Your task to perform on an android device: set the stopwatch Image 0: 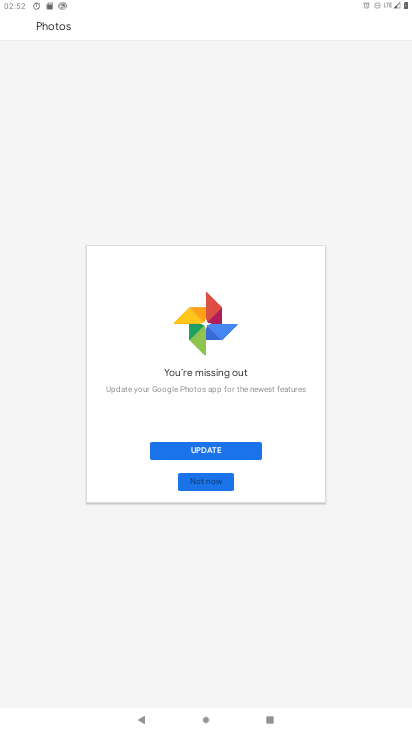
Step 0: press home button
Your task to perform on an android device: set the stopwatch Image 1: 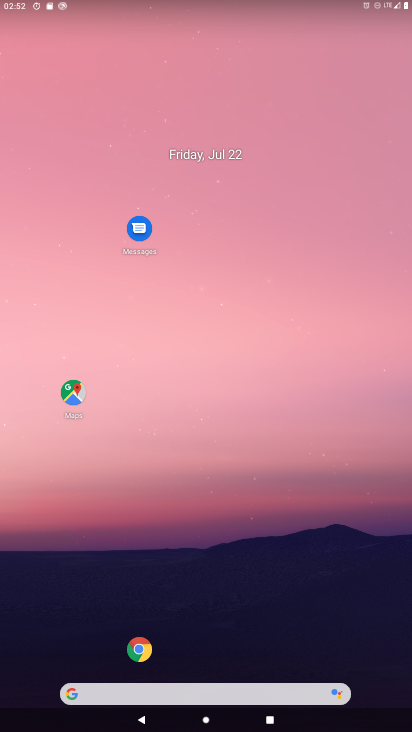
Step 1: drag from (26, 675) to (370, 15)
Your task to perform on an android device: set the stopwatch Image 2: 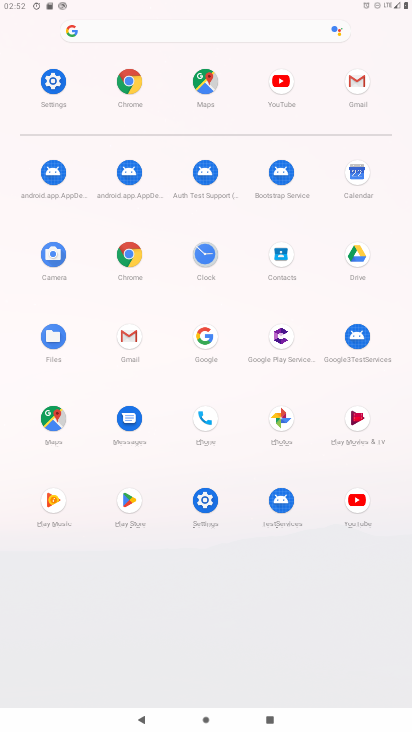
Step 2: click (211, 265)
Your task to perform on an android device: set the stopwatch Image 3: 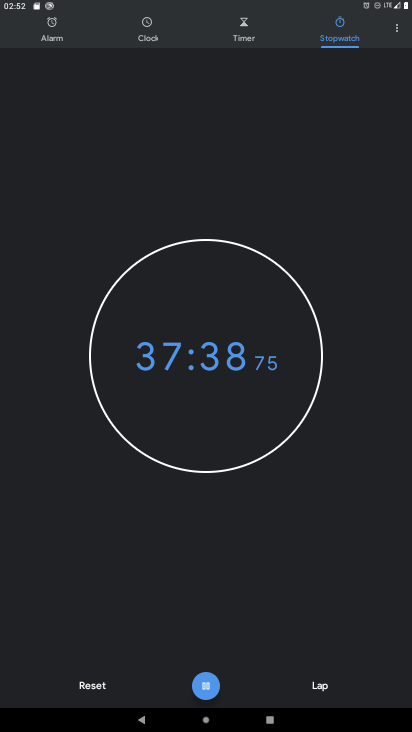
Step 3: click (195, 391)
Your task to perform on an android device: set the stopwatch Image 4: 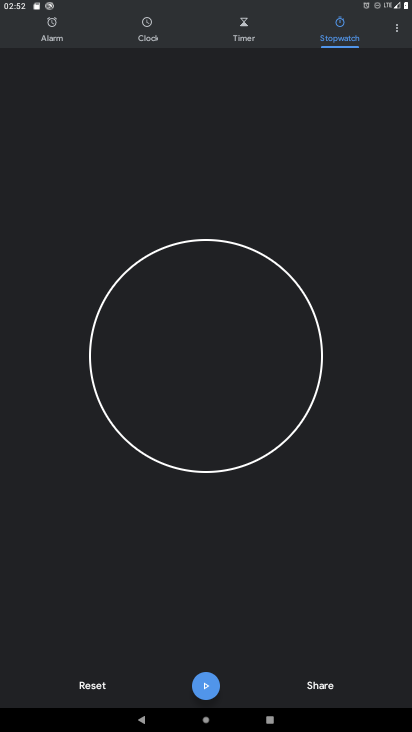
Step 4: task complete